Your task to perform on an android device: turn notification dots on Image 0: 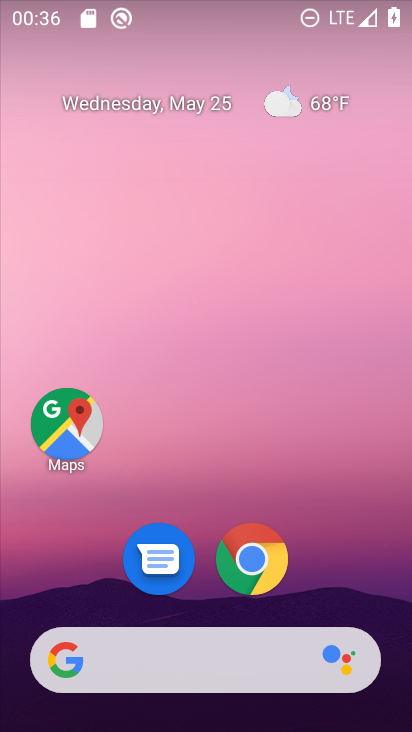
Step 0: drag from (387, 548) to (316, 72)
Your task to perform on an android device: turn notification dots on Image 1: 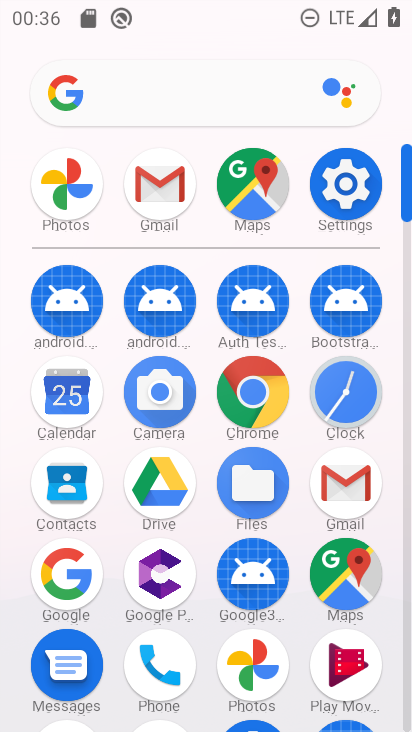
Step 1: click (409, 655)
Your task to perform on an android device: turn notification dots on Image 2: 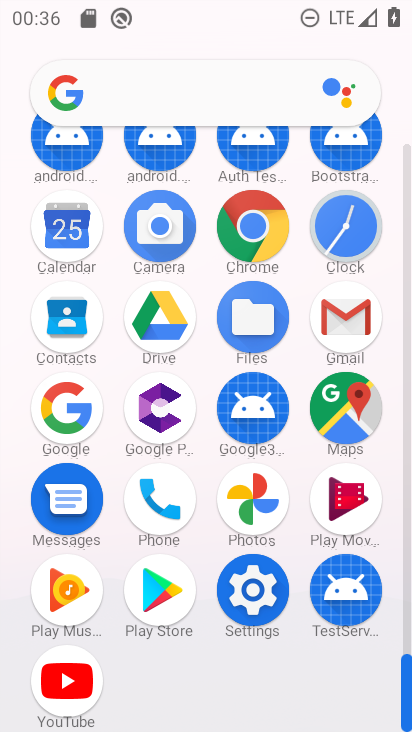
Step 2: click (251, 592)
Your task to perform on an android device: turn notification dots on Image 3: 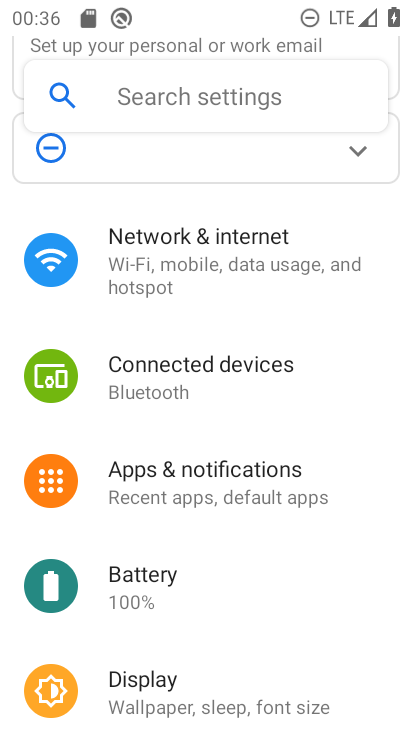
Step 3: click (193, 469)
Your task to perform on an android device: turn notification dots on Image 4: 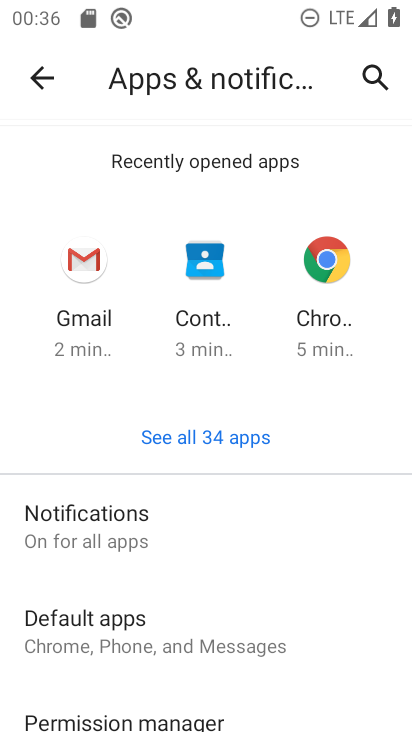
Step 4: click (143, 522)
Your task to perform on an android device: turn notification dots on Image 5: 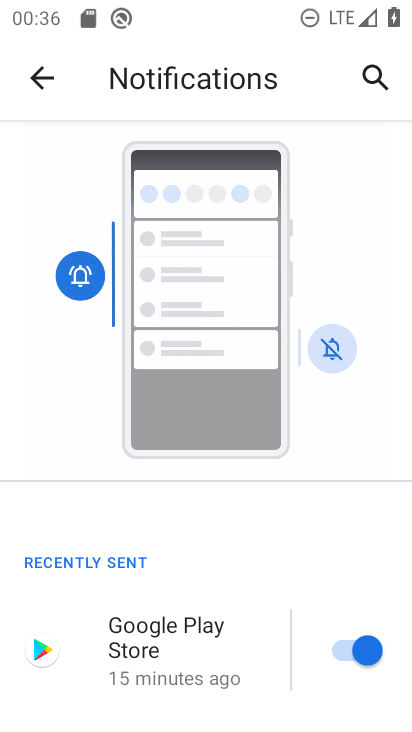
Step 5: drag from (262, 707) to (175, 220)
Your task to perform on an android device: turn notification dots on Image 6: 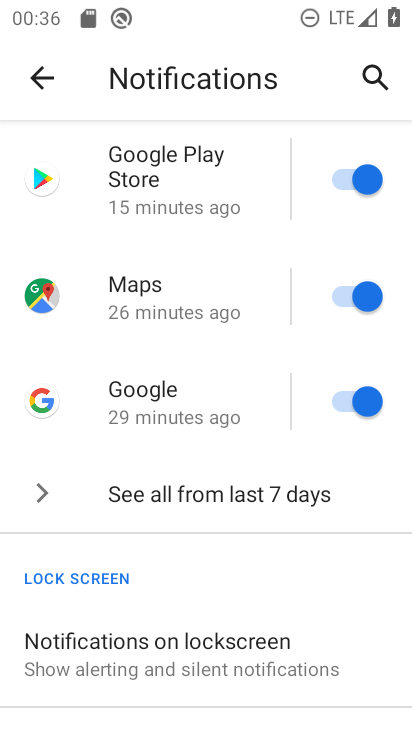
Step 6: drag from (236, 601) to (182, 175)
Your task to perform on an android device: turn notification dots on Image 7: 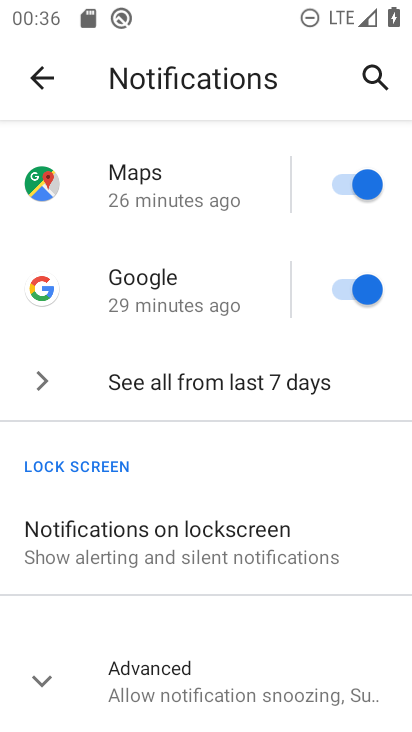
Step 7: click (43, 679)
Your task to perform on an android device: turn notification dots on Image 8: 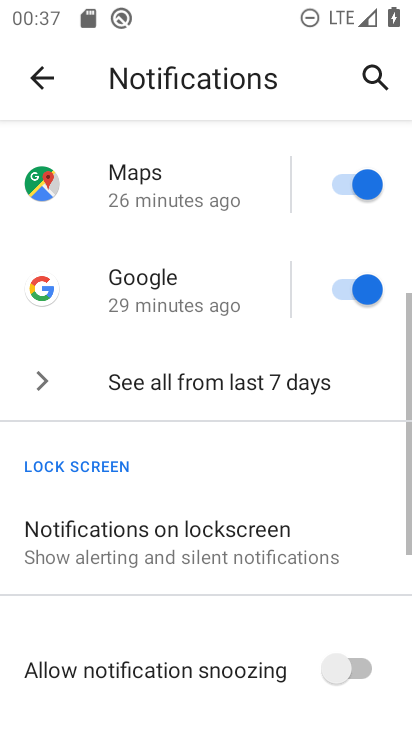
Step 8: drag from (308, 654) to (209, 138)
Your task to perform on an android device: turn notification dots on Image 9: 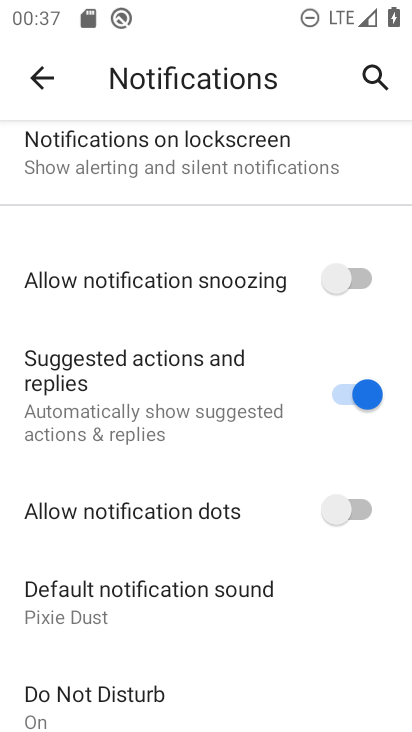
Step 9: click (367, 505)
Your task to perform on an android device: turn notification dots on Image 10: 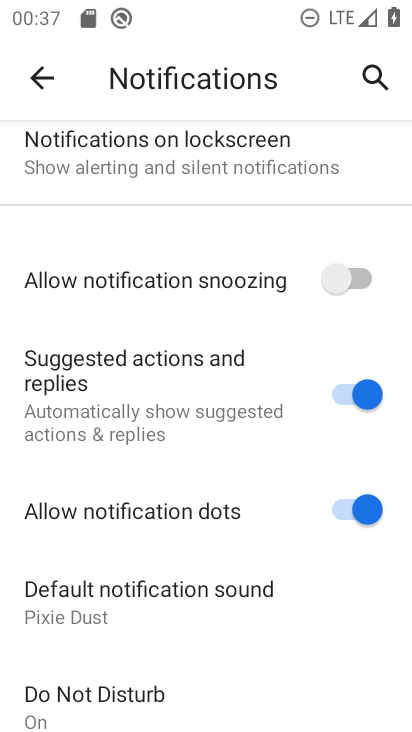
Step 10: task complete